Your task to perform on an android device: turn pop-ups off in chrome Image 0: 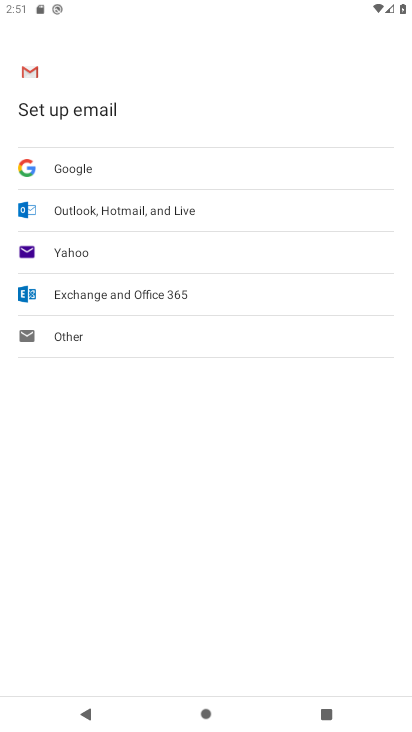
Step 0: drag from (326, 608) to (327, 541)
Your task to perform on an android device: turn pop-ups off in chrome Image 1: 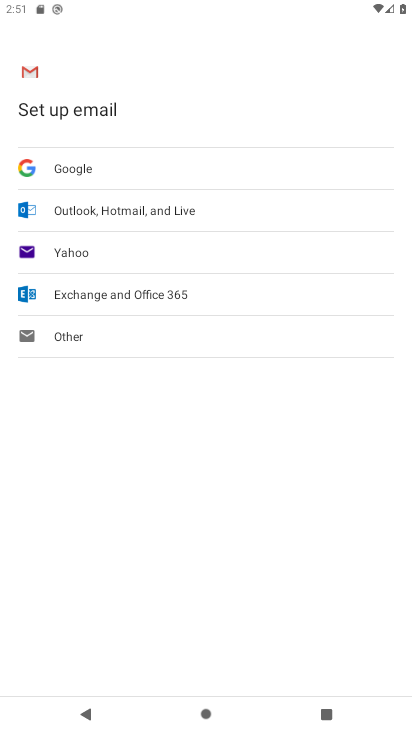
Step 1: press home button
Your task to perform on an android device: turn pop-ups off in chrome Image 2: 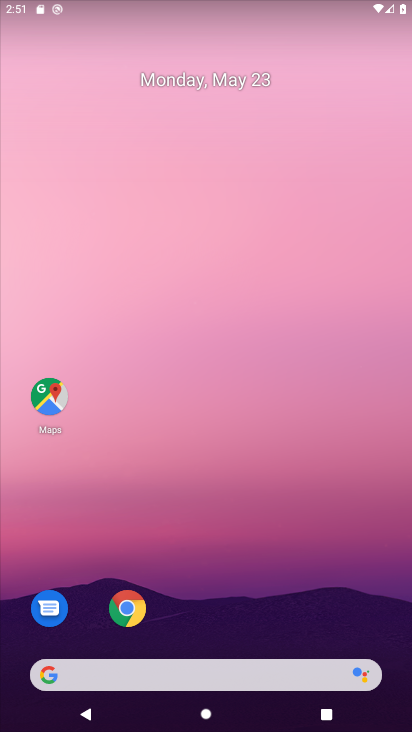
Step 2: click (135, 617)
Your task to perform on an android device: turn pop-ups off in chrome Image 3: 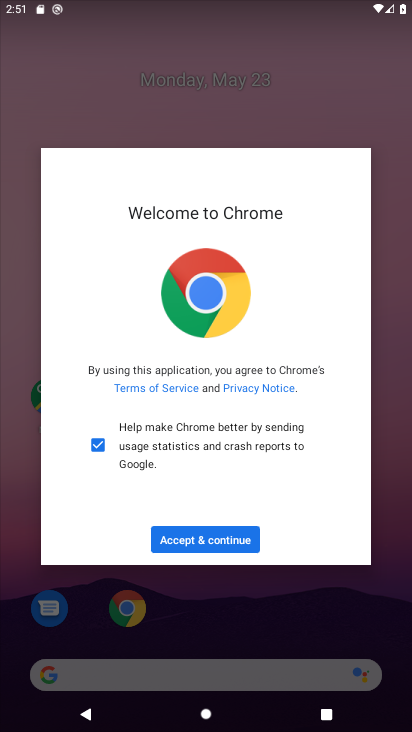
Step 3: click (206, 541)
Your task to perform on an android device: turn pop-ups off in chrome Image 4: 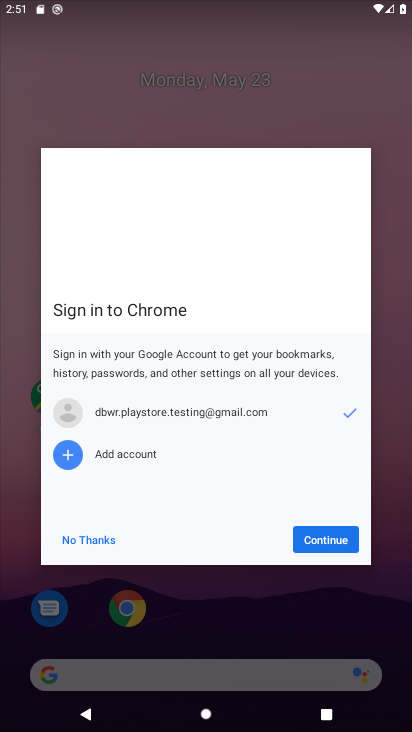
Step 4: click (343, 540)
Your task to perform on an android device: turn pop-ups off in chrome Image 5: 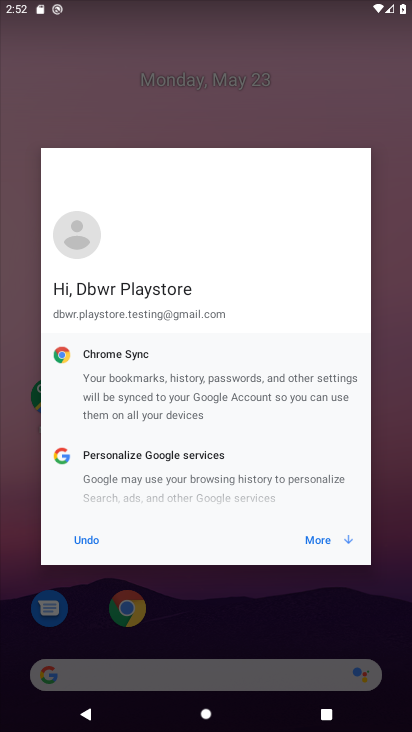
Step 5: click (343, 540)
Your task to perform on an android device: turn pop-ups off in chrome Image 6: 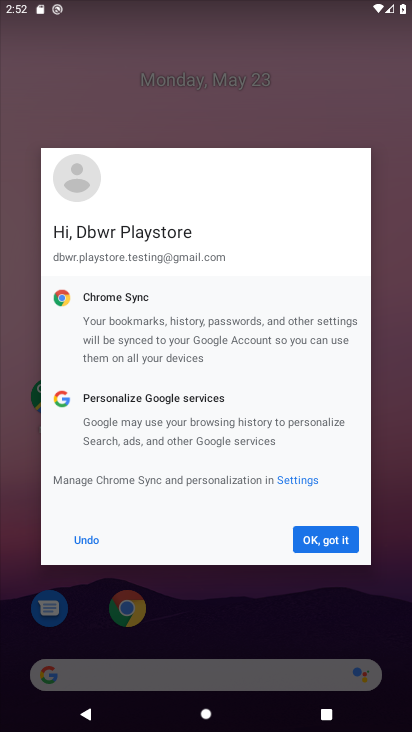
Step 6: click (343, 540)
Your task to perform on an android device: turn pop-ups off in chrome Image 7: 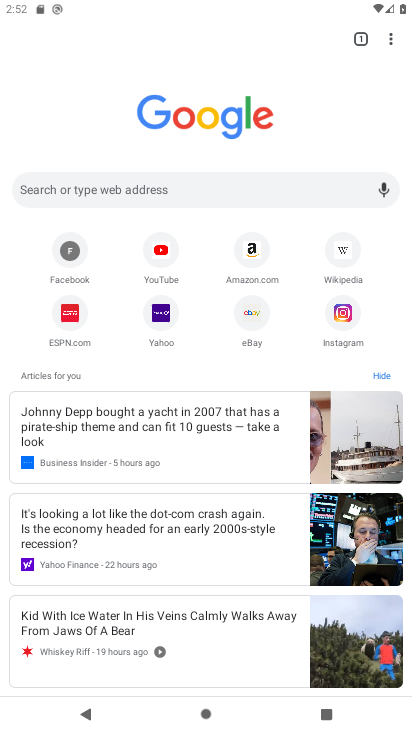
Step 7: click (390, 37)
Your task to perform on an android device: turn pop-ups off in chrome Image 8: 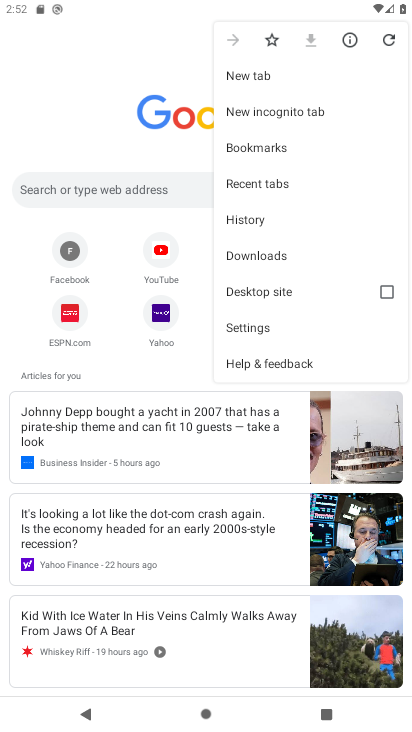
Step 8: click (254, 326)
Your task to perform on an android device: turn pop-ups off in chrome Image 9: 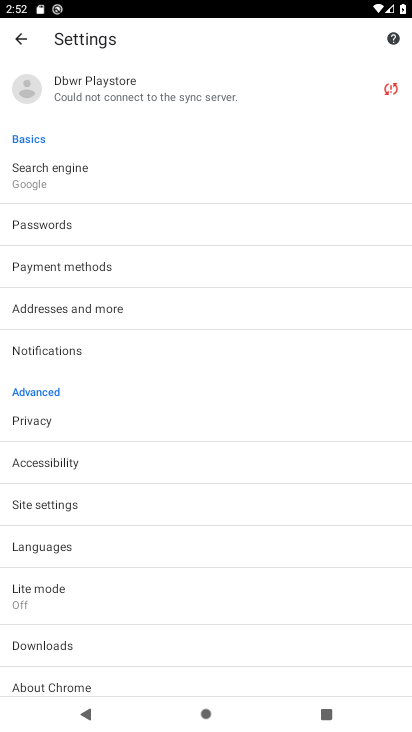
Step 9: click (169, 500)
Your task to perform on an android device: turn pop-ups off in chrome Image 10: 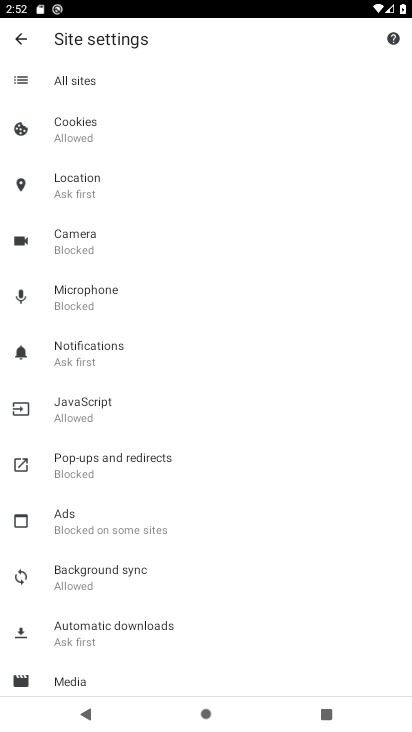
Step 10: click (164, 461)
Your task to perform on an android device: turn pop-ups off in chrome Image 11: 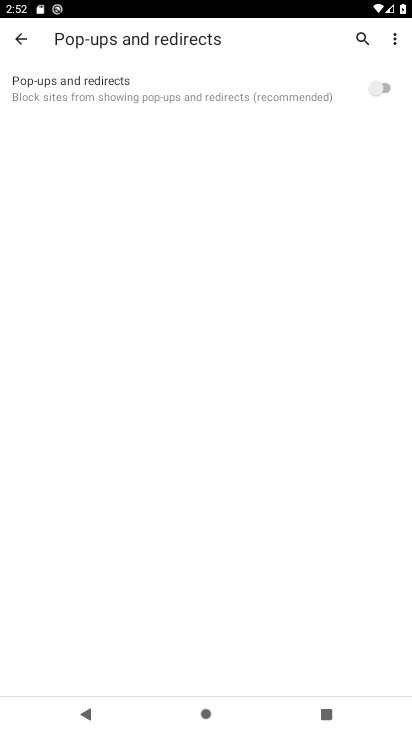
Step 11: task complete